Your task to perform on an android device: turn notification dots off Image 0: 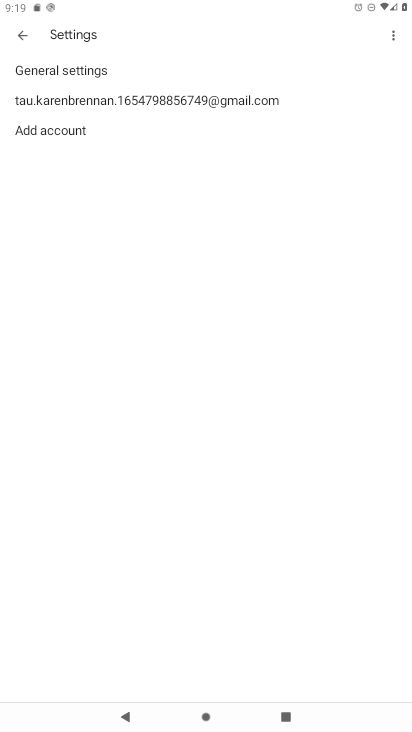
Step 0: press home button
Your task to perform on an android device: turn notification dots off Image 1: 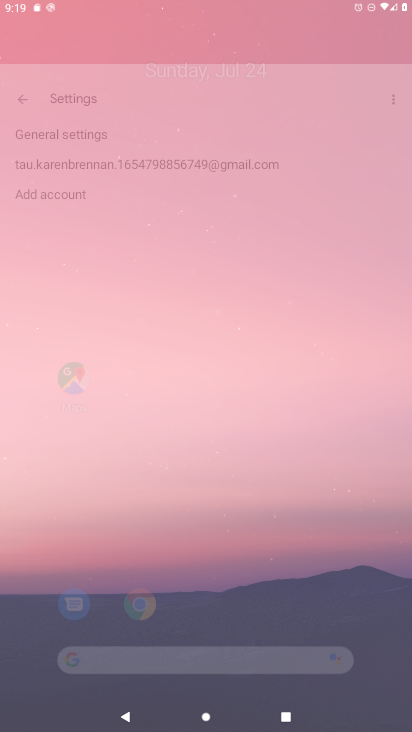
Step 1: drag from (400, 655) to (147, 20)
Your task to perform on an android device: turn notification dots off Image 2: 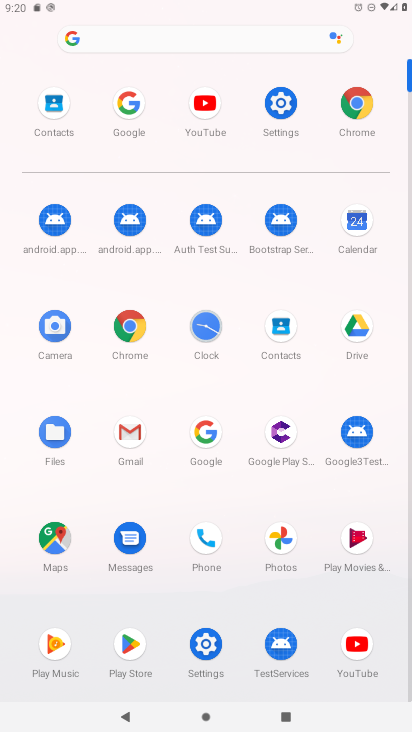
Step 2: click (207, 634)
Your task to perform on an android device: turn notification dots off Image 3: 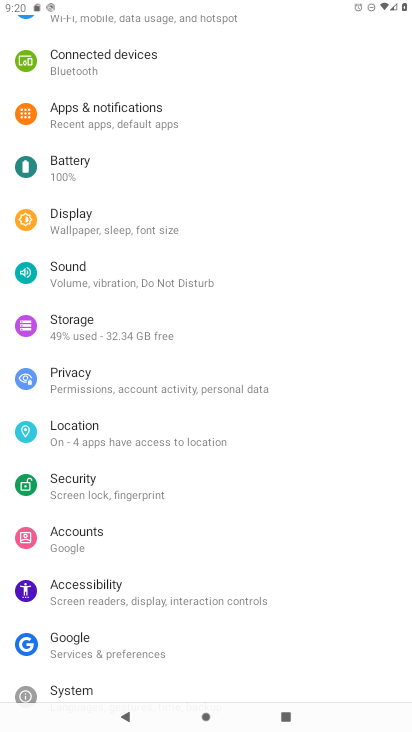
Step 3: click (140, 125)
Your task to perform on an android device: turn notification dots off Image 4: 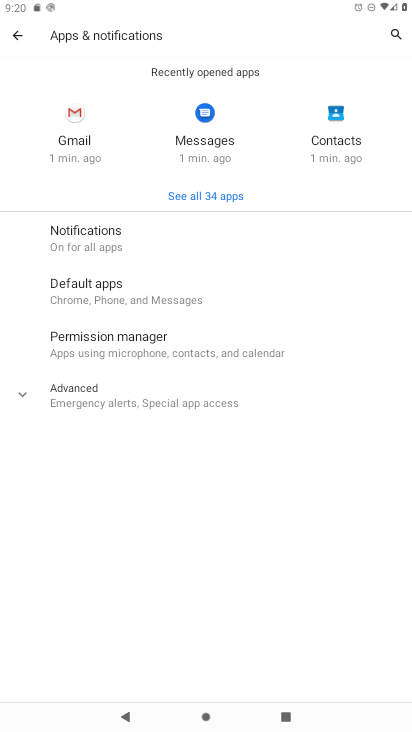
Step 4: click (28, 381)
Your task to perform on an android device: turn notification dots off Image 5: 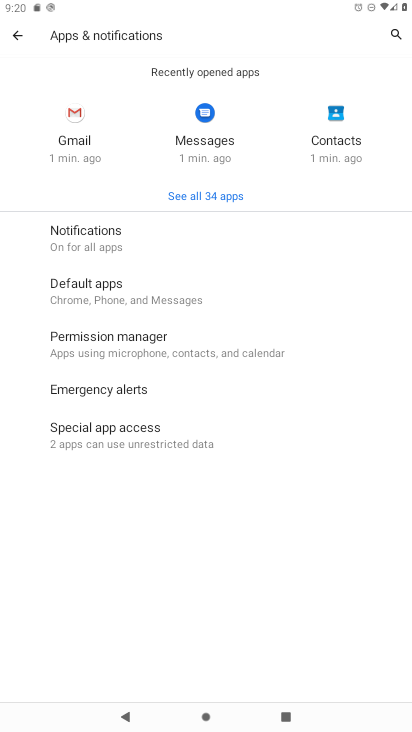
Step 5: click (116, 229)
Your task to perform on an android device: turn notification dots off Image 6: 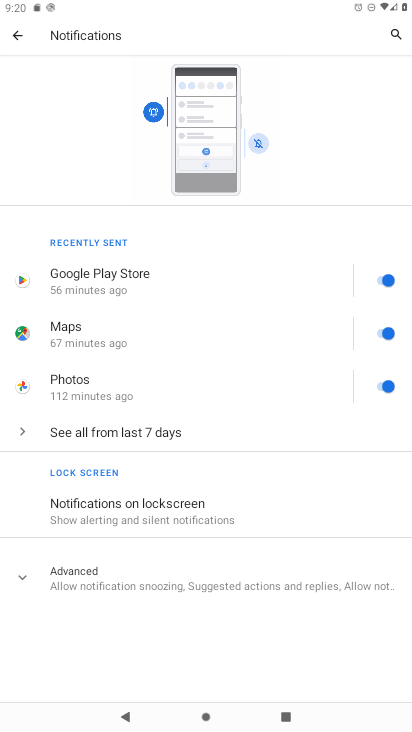
Step 6: click (62, 583)
Your task to perform on an android device: turn notification dots off Image 7: 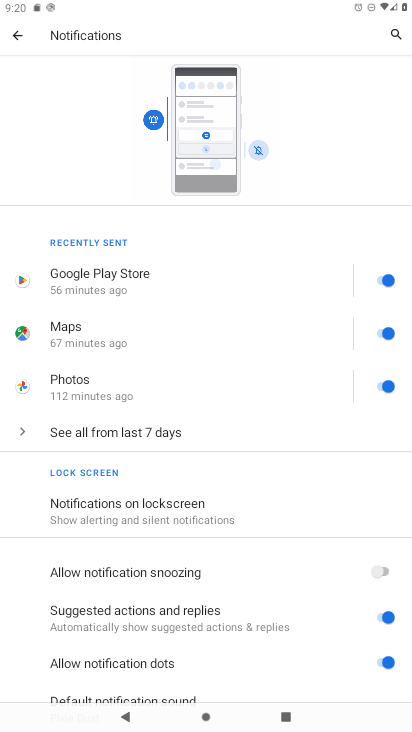
Step 7: click (146, 663)
Your task to perform on an android device: turn notification dots off Image 8: 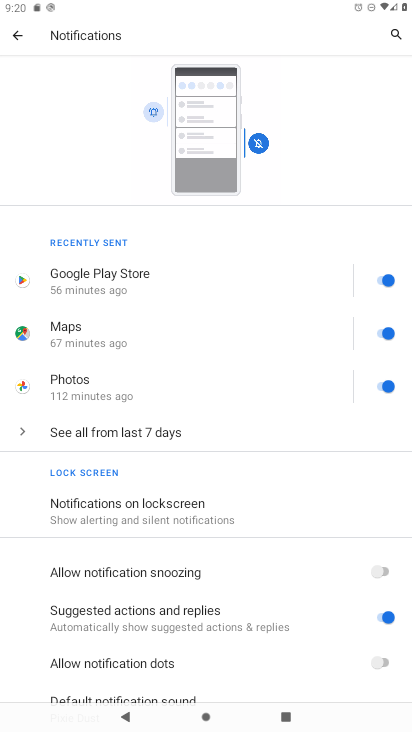
Step 8: task complete